Your task to perform on an android device: turn off smart reply in the gmail app Image 0: 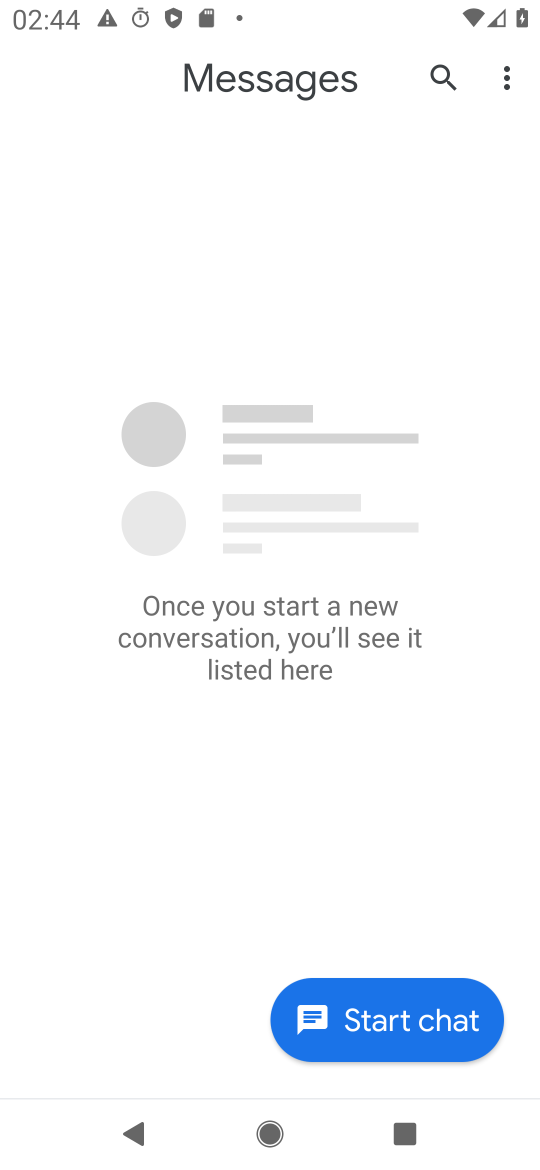
Step 0: press home button
Your task to perform on an android device: turn off smart reply in the gmail app Image 1: 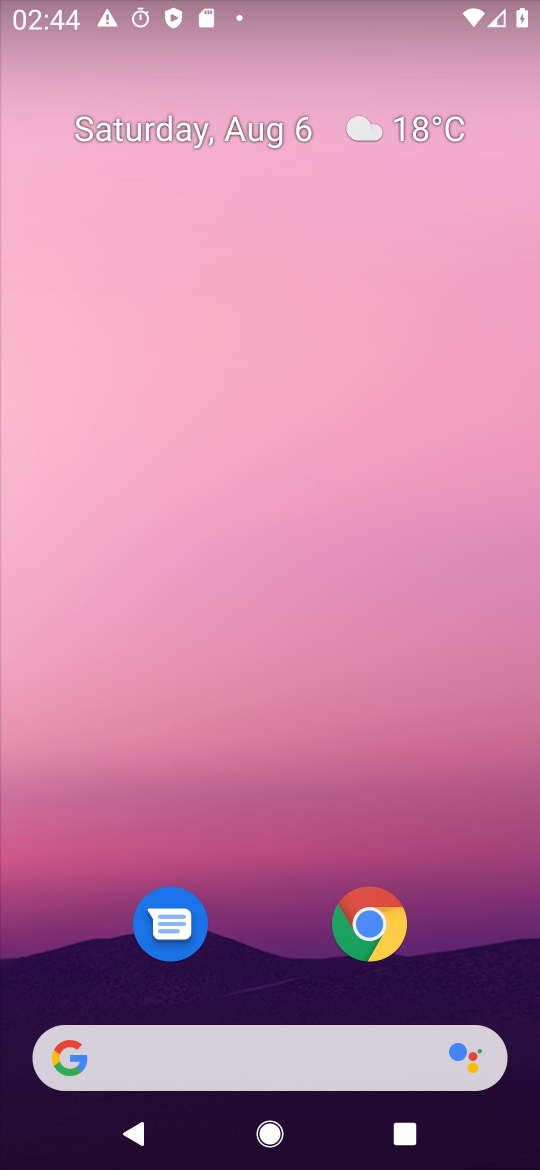
Step 1: drag from (346, 263) to (317, 58)
Your task to perform on an android device: turn off smart reply in the gmail app Image 2: 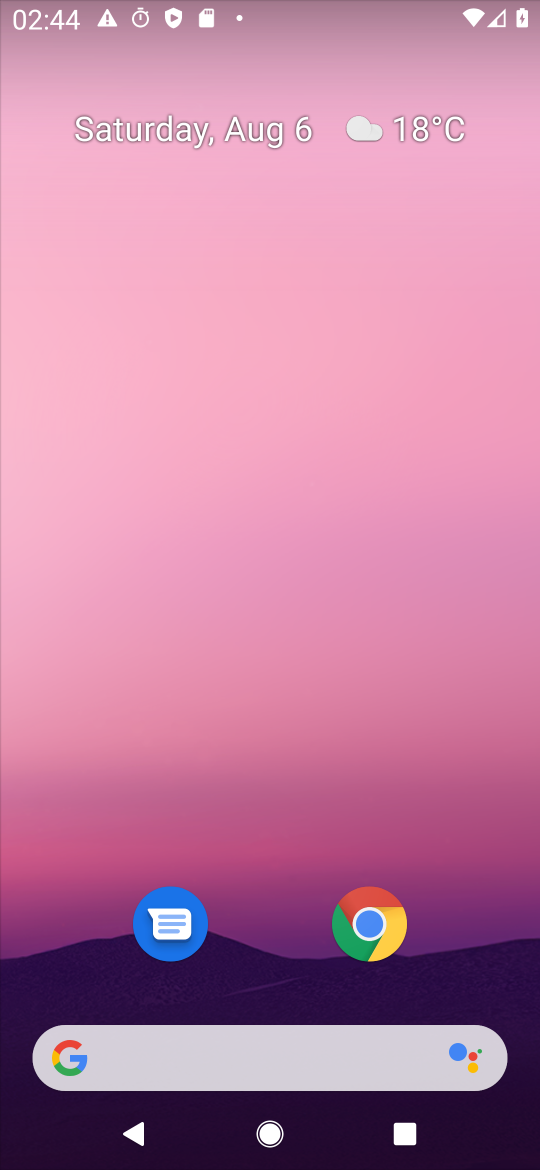
Step 2: click (355, 592)
Your task to perform on an android device: turn off smart reply in the gmail app Image 3: 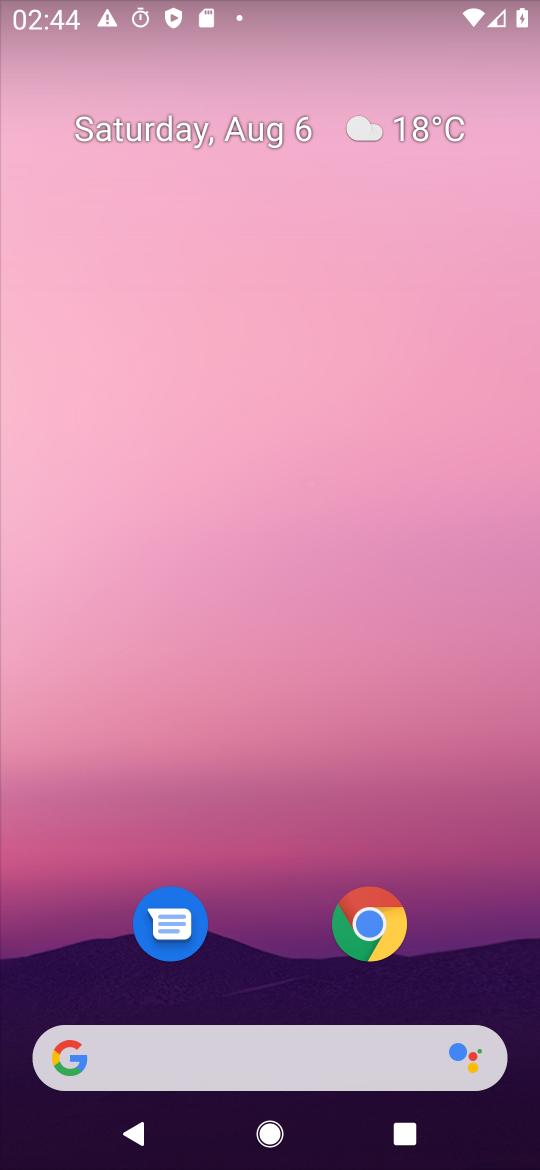
Step 3: drag from (239, 1045) to (267, 254)
Your task to perform on an android device: turn off smart reply in the gmail app Image 4: 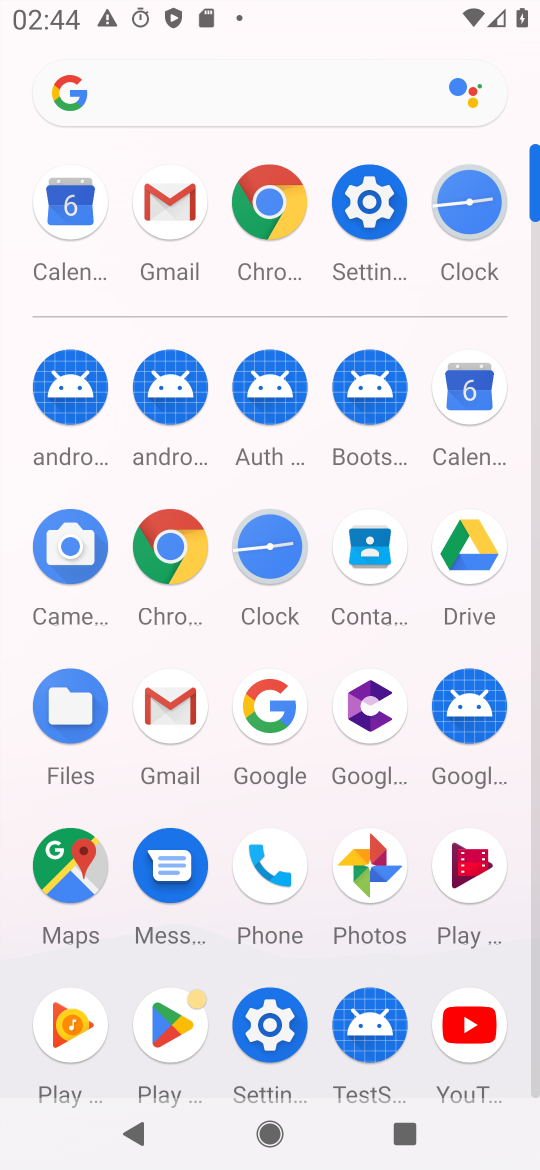
Step 4: click (171, 714)
Your task to perform on an android device: turn off smart reply in the gmail app Image 5: 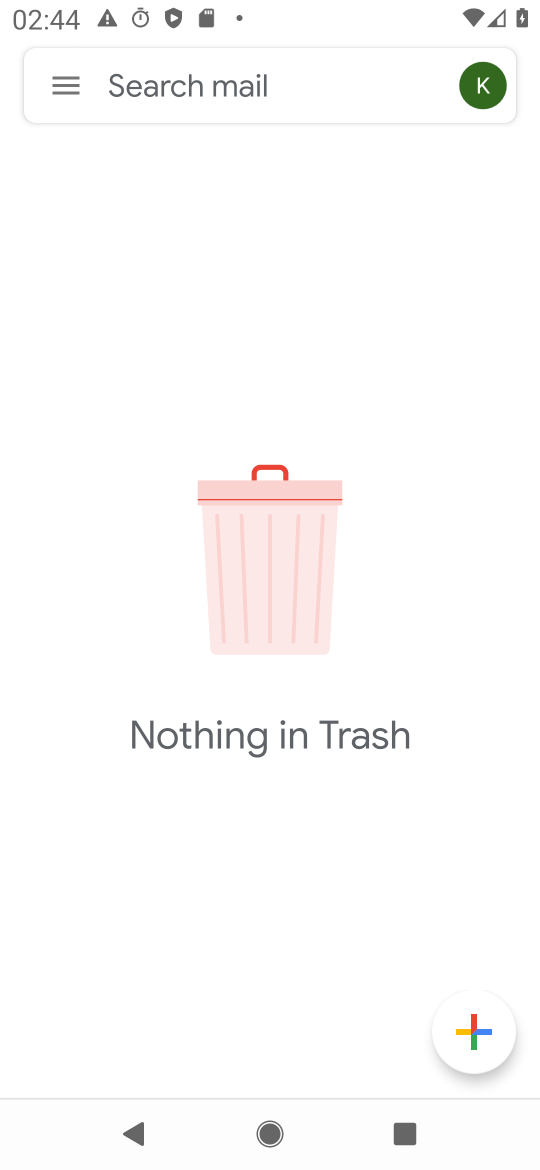
Step 5: click (57, 94)
Your task to perform on an android device: turn off smart reply in the gmail app Image 6: 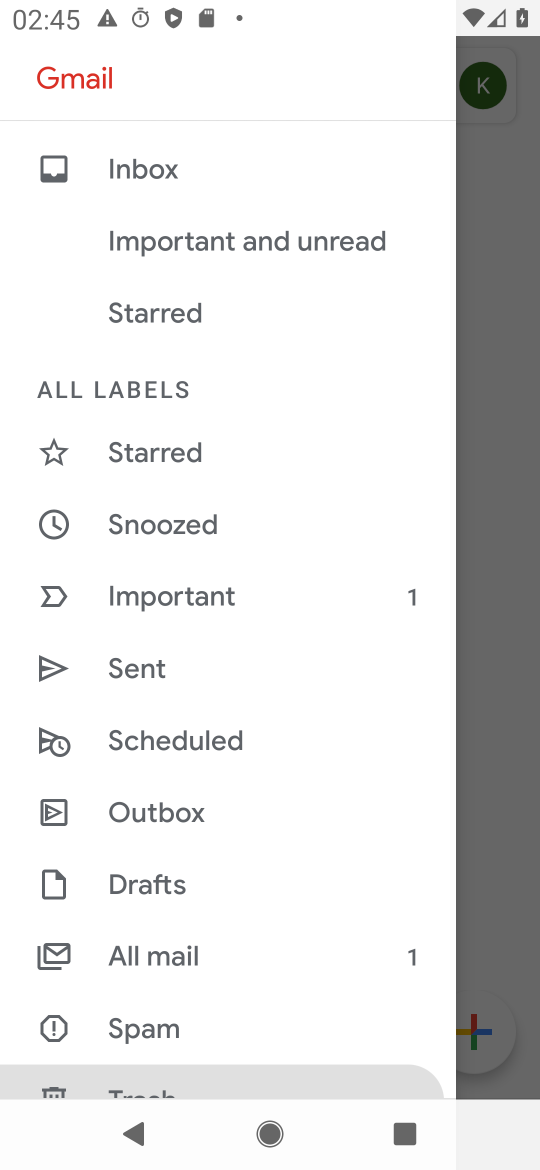
Step 6: drag from (268, 988) to (226, 231)
Your task to perform on an android device: turn off smart reply in the gmail app Image 7: 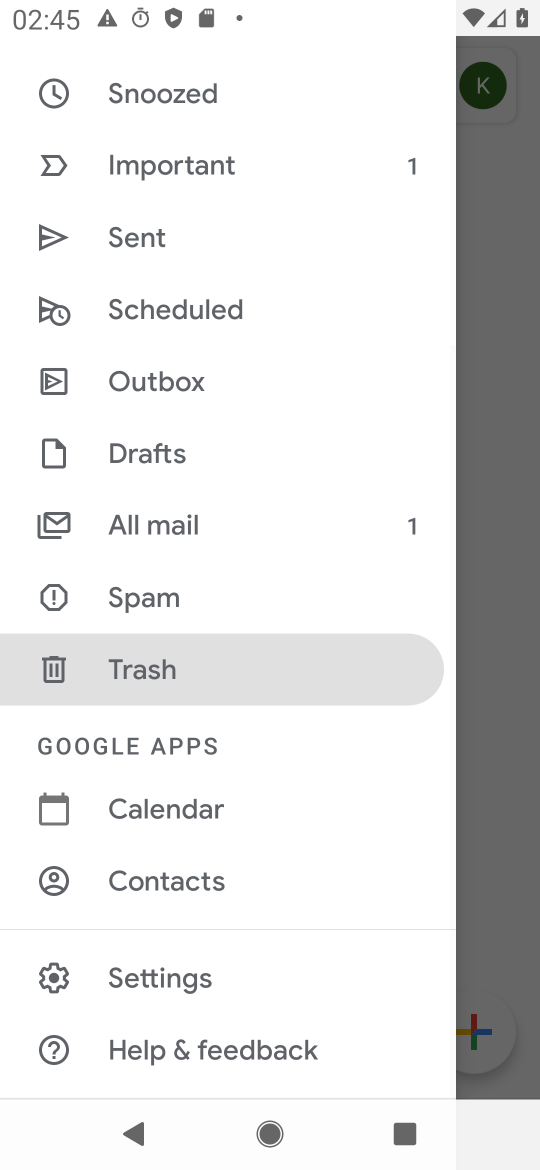
Step 7: click (197, 983)
Your task to perform on an android device: turn off smart reply in the gmail app Image 8: 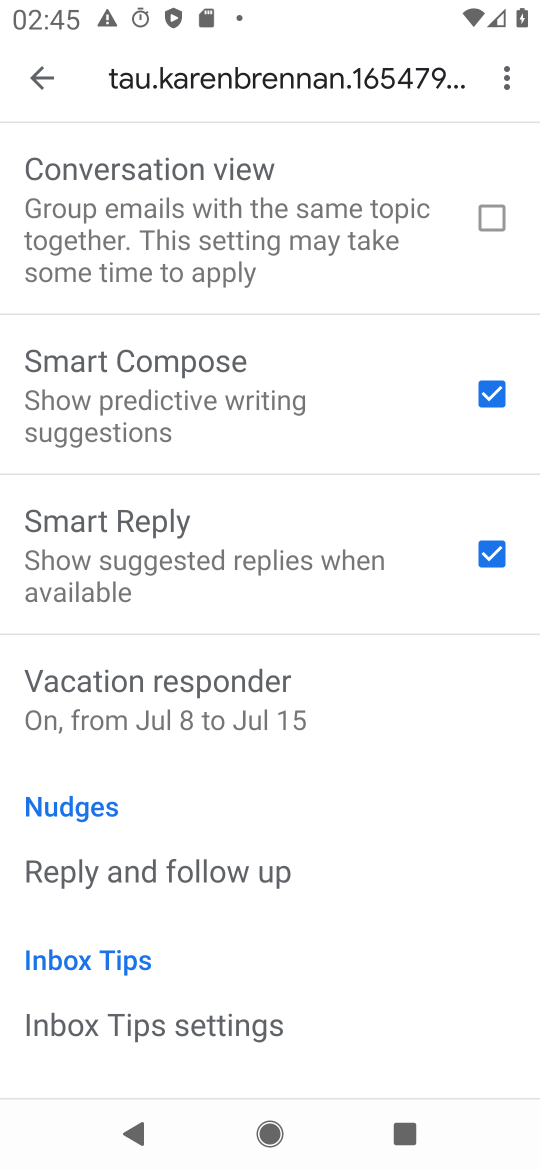
Step 8: click (392, 571)
Your task to perform on an android device: turn off smart reply in the gmail app Image 9: 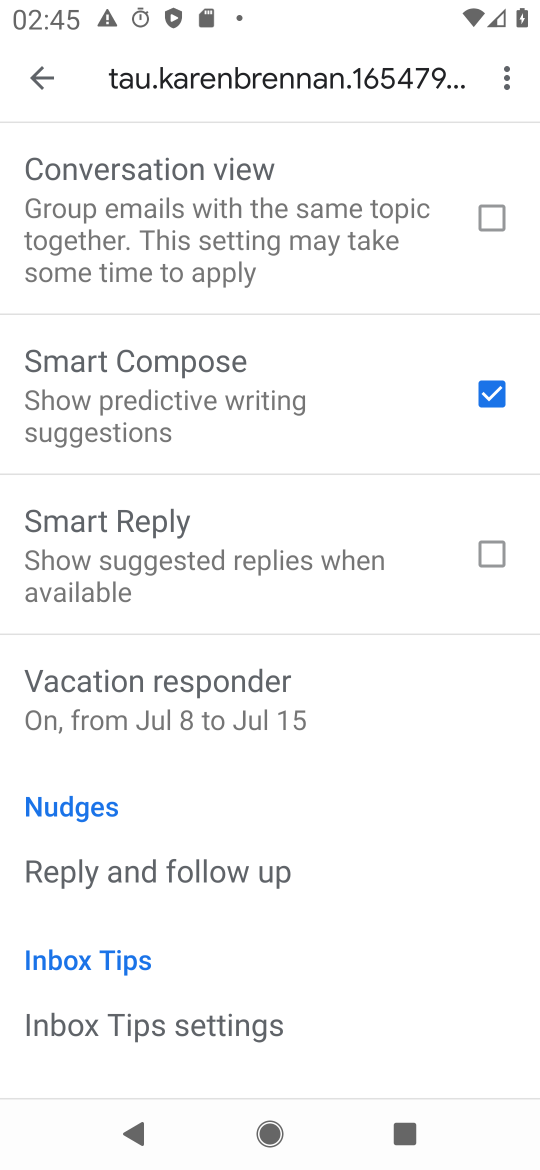
Step 9: task complete